Your task to perform on an android device: choose inbox layout in the gmail app Image 0: 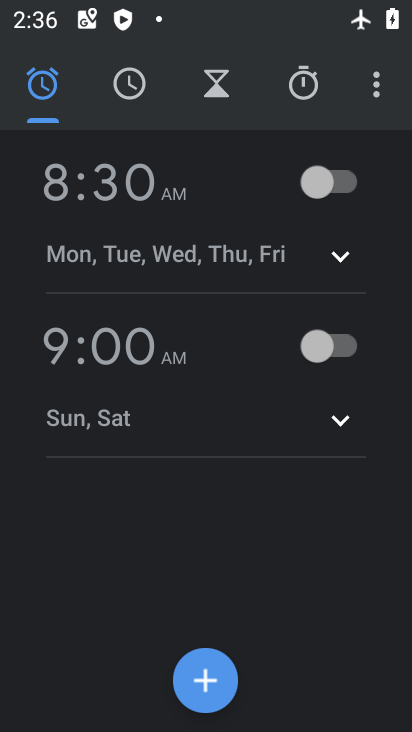
Step 0: press home button
Your task to perform on an android device: choose inbox layout in the gmail app Image 1: 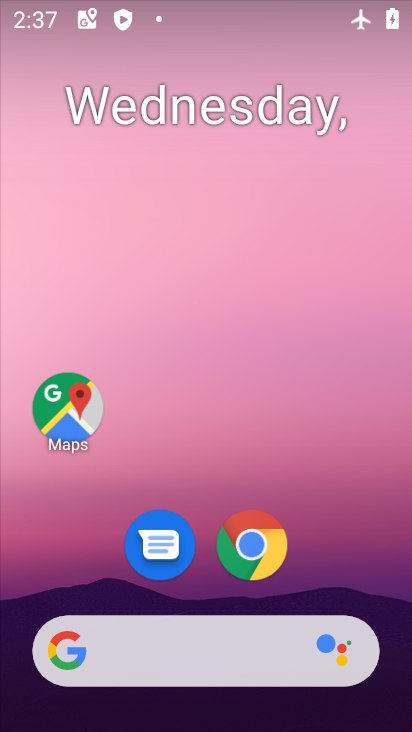
Step 1: drag from (348, 492) to (331, 137)
Your task to perform on an android device: choose inbox layout in the gmail app Image 2: 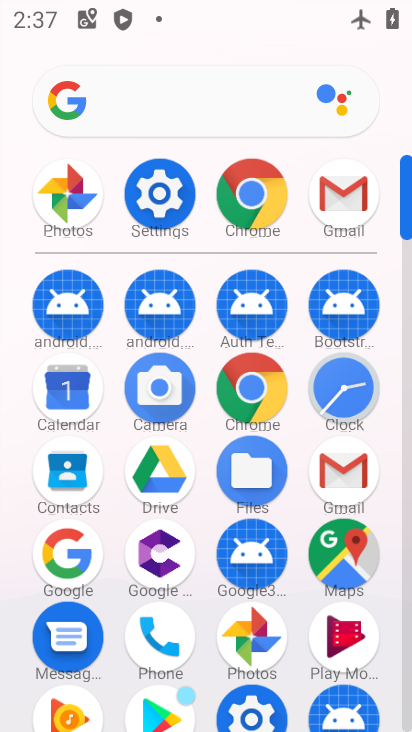
Step 2: click (330, 197)
Your task to perform on an android device: choose inbox layout in the gmail app Image 3: 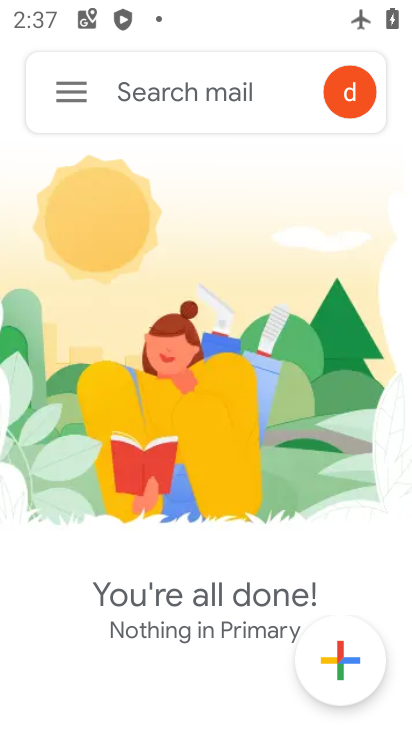
Step 3: click (85, 93)
Your task to perform on an android device: choose inbox layout in the gmail app Image 4: 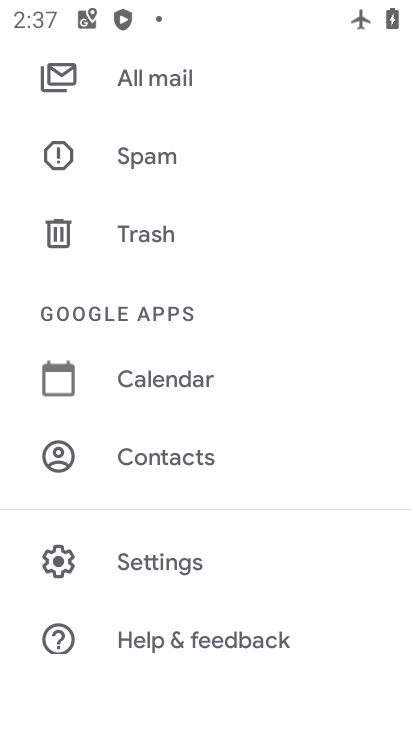
Step 4: click (169, 553)
Your task to perform on an android device: choose inbox layout in the gmail app Image 5: 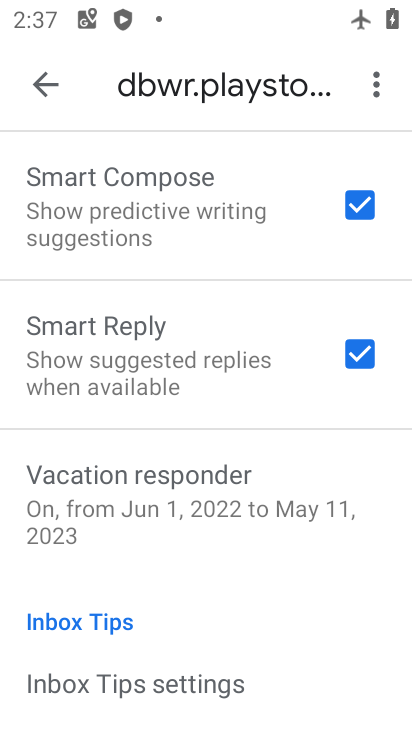
Step 5: click (53, 76)
Your task to perform on an android device: choose inbox layout in the gmail app Image 6: 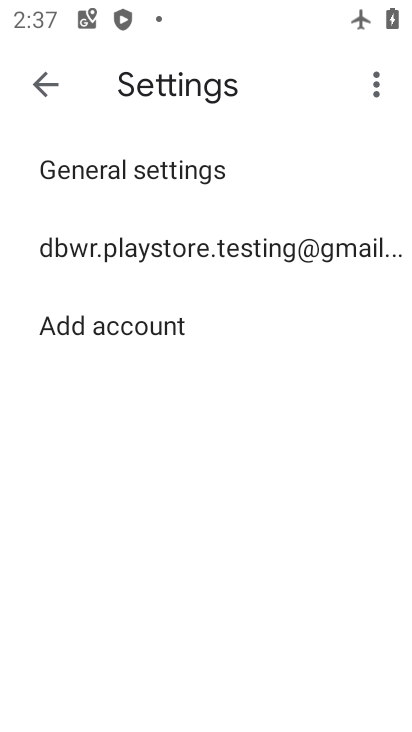
Step 6: click (189, 244)
Your task to perform on an android device: choose inbox layout in the gmail app Image 7: 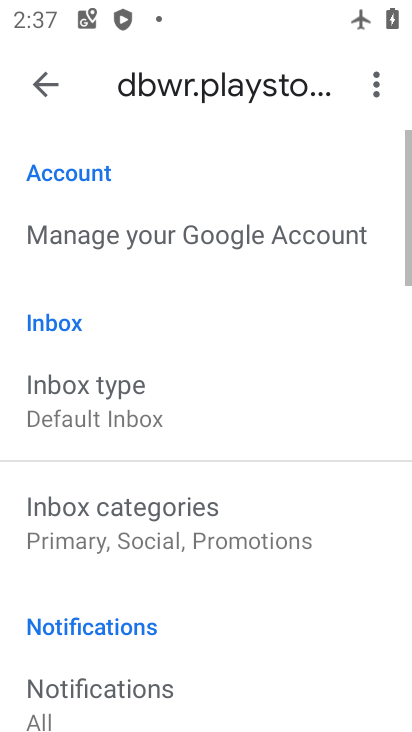
Step 7: click (67, 409)
Your task to perform on an android device: choose inbox layout in the gmail app Image 8: 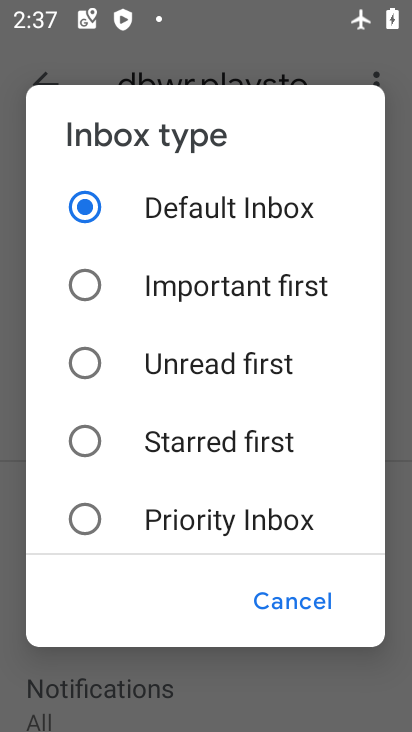
Step 8: click (157, 505)
Your task to perform on an android device: choose inbox layout in the gmail app Image 9: 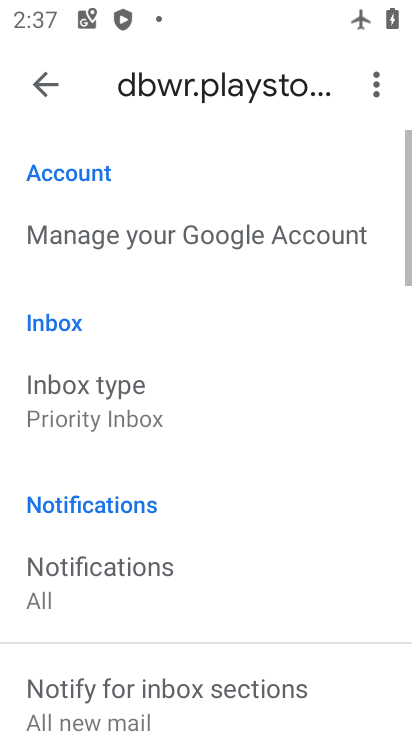
Step 9: task complete